Your task to perform on an android device: Go to Android settings Image 0: 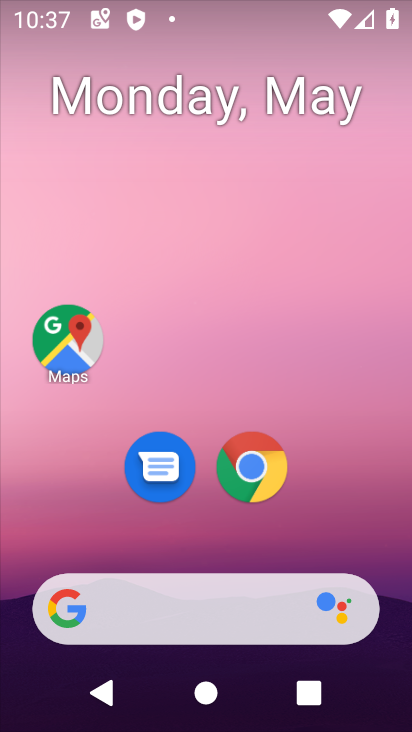
Step 0: drag from (391, 613) to (344, 15)
Your task to perform on an android device: Go to Android settings Image 1: 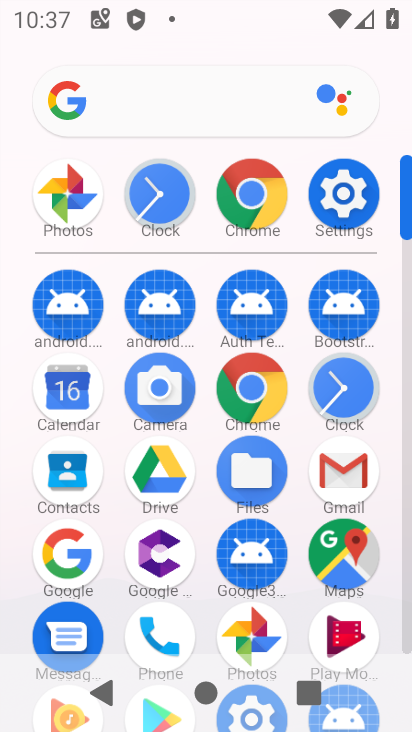
Step 1: click (411, 630)
Your task to perform on an android device: Go to Android settings Image 2: 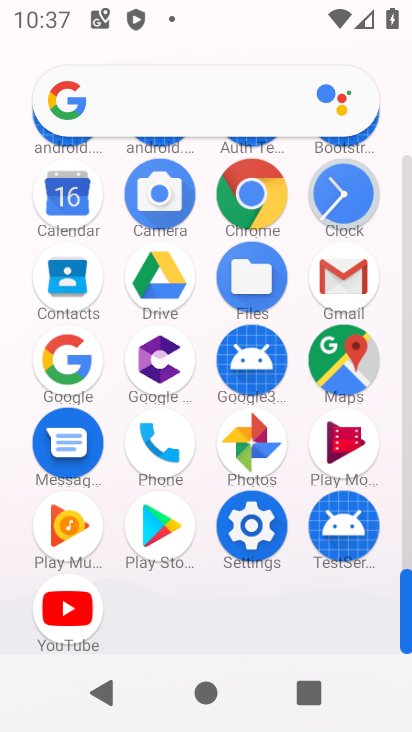
Step 2: click (252, 523)
Your task to perform on an android device: Go to Android settings Image 3: 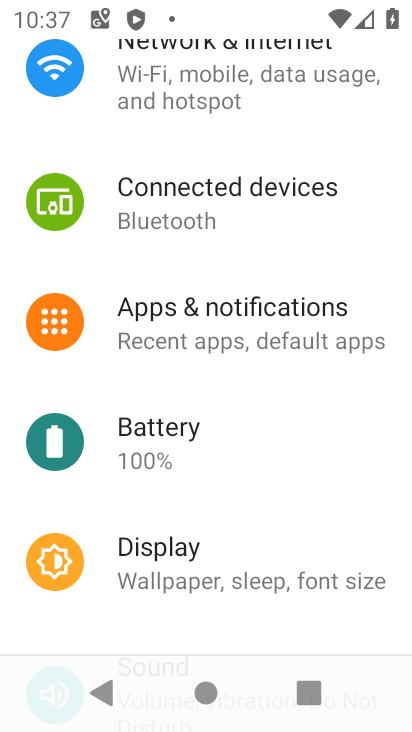
Step 3: drag from (397, 617) to (332, 163)
Your task to perform on an android device: Go to Android settings Image 4: 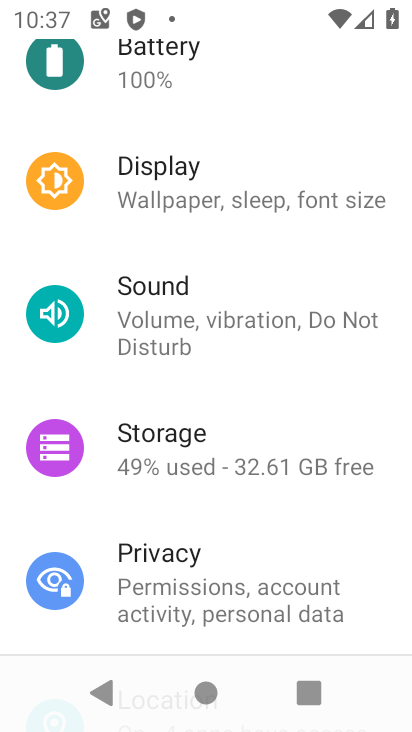
Step 4: drag from (377, 606) to (281, 84)
Your task to perform on an android device: Go to Android settings Image 5: 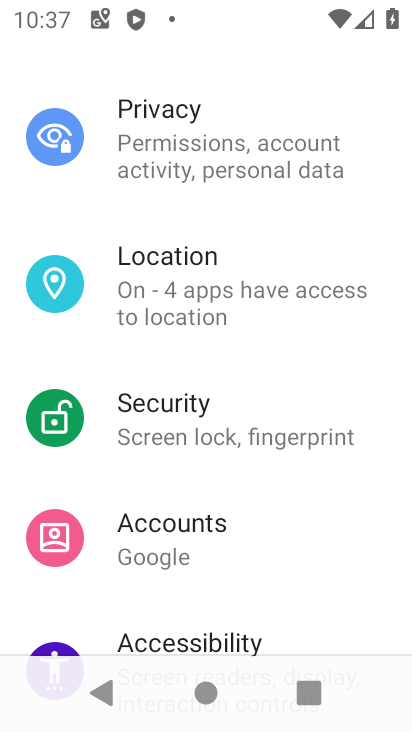
Step 5: drag from (387, 611) to (333, 119)
Your task to perform on an android device: Go to Android settings Image 6: 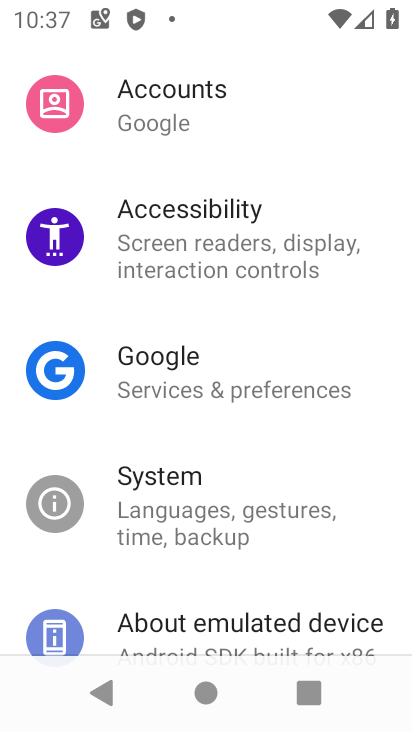
Step 6: drag from (377, 591) to (305, 78)
Your task to perform on an android device: Go to Android settings Image 7: 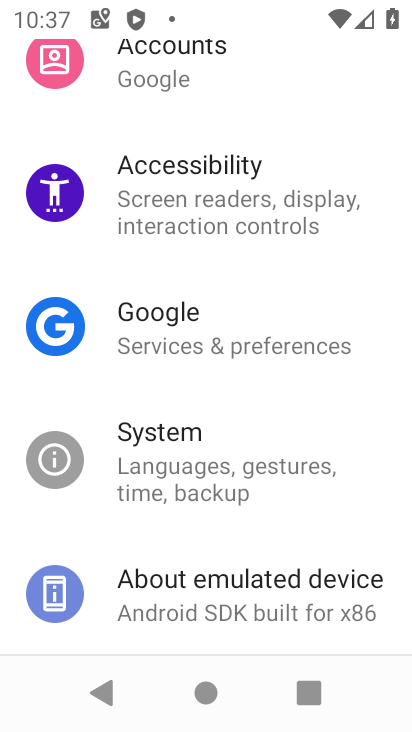
Step 7: click (228, 602)
Your task to perform on an android device: Go to Android settings Image 8: 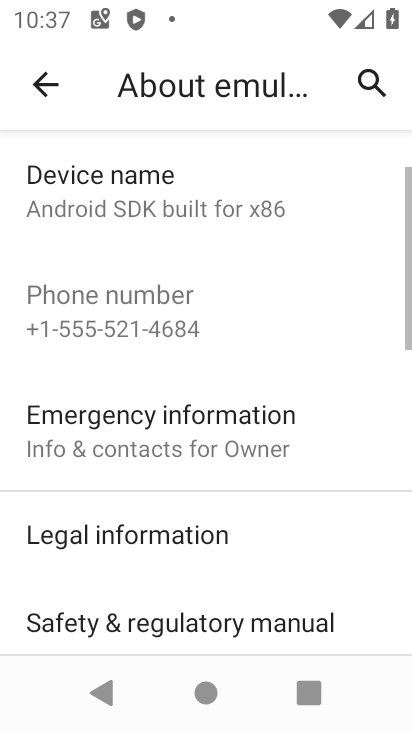
Step 8: task complete